Your task to perform on an android device: turn on priority inbox in the gmail app Image 0: 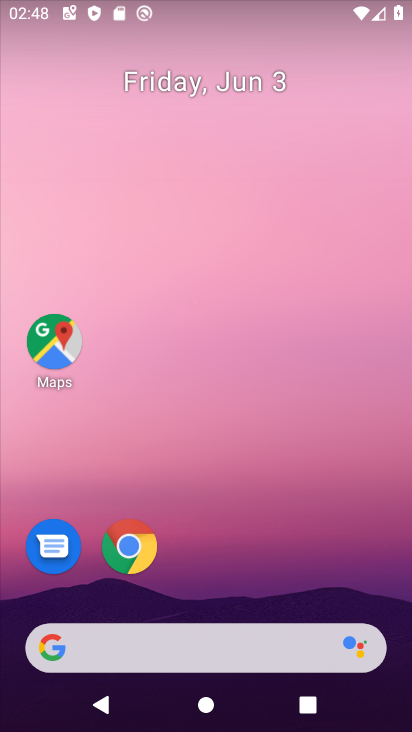
Step 0: drag from (254, 499) to (272, 38)
Your task to perform on an android device: turn on priority inbox in the gmail app Image 1: 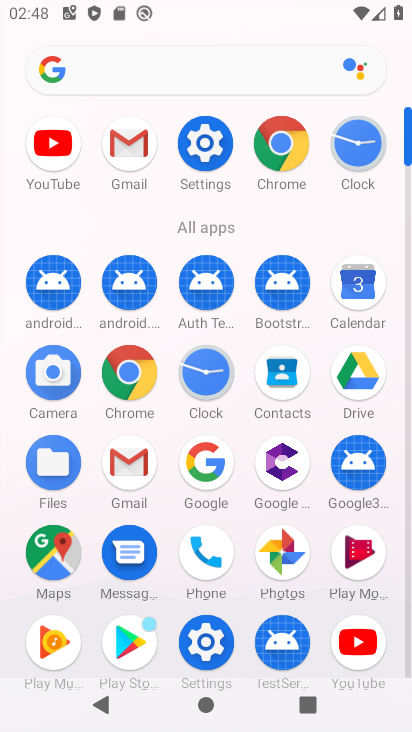
Step 1: click (136, 458)
Your task to perform on an android device: turn on priority inbox in the gmail app Image 2: 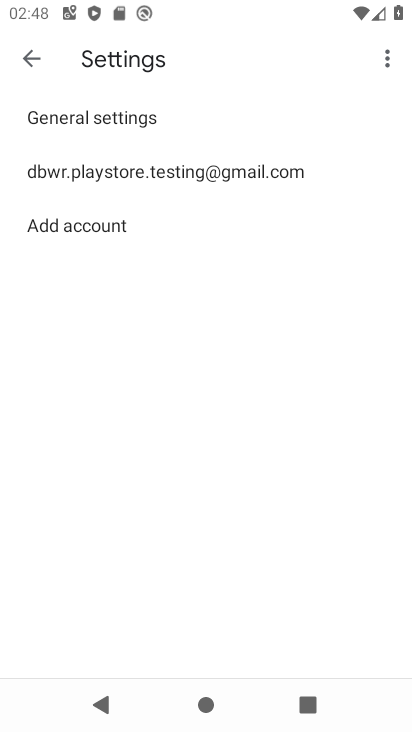
Step 2: click (79, 156)
Your task to perform on an android device: turn on priority inbox in the gmail app Image 3: 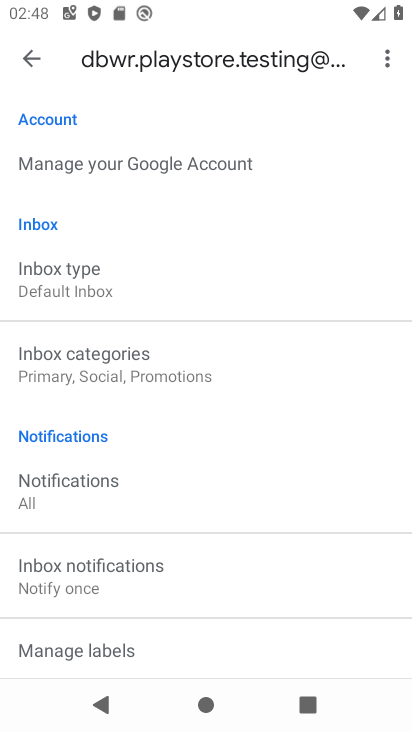
Step 3: click (87, 279)
Your task to perform on an android device: turn on priority inbox in the gmail app Image 4: 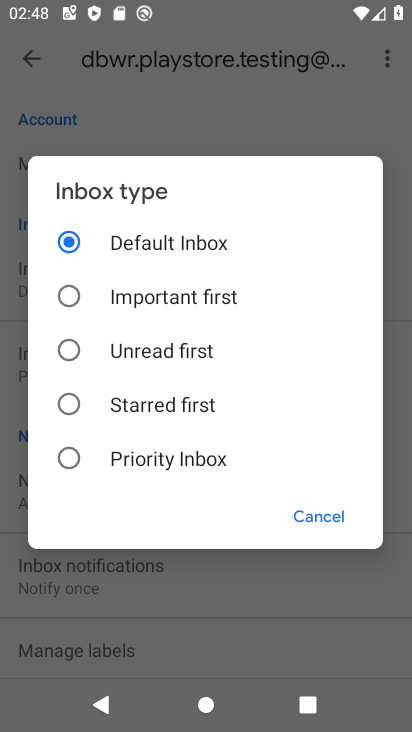
Step 4: click (94, 436)
Your task to perform on an android device: turn on priority inbox in the gmail app Image 5: 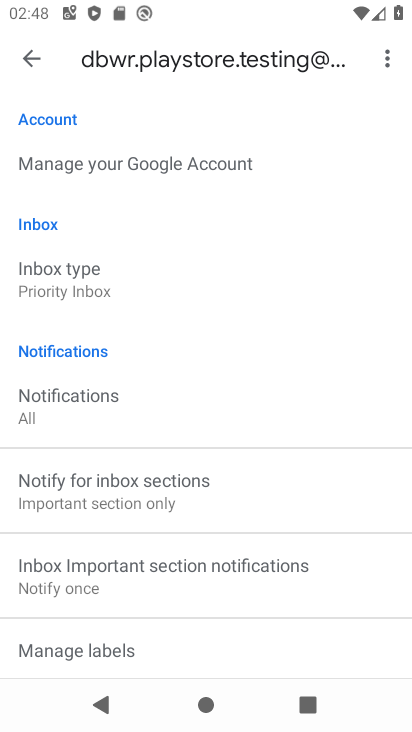
Step 5: task complete